Your task to perform on an android device: Is it going to rain this weekend? Image 0: 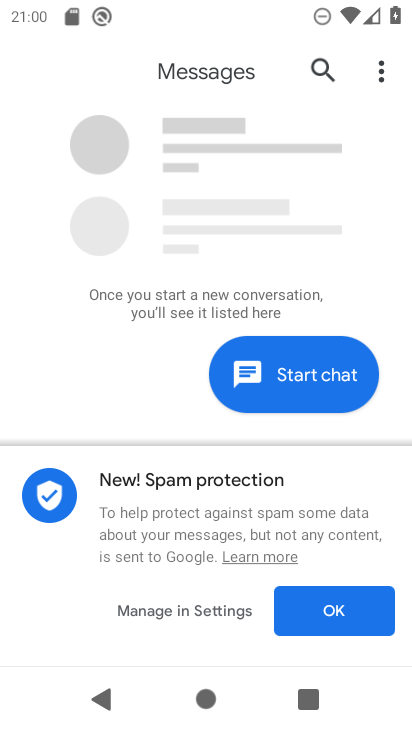
Step 0: press home button
Your task to perform on an android device: Is it going to rain this weekend? Image 1: 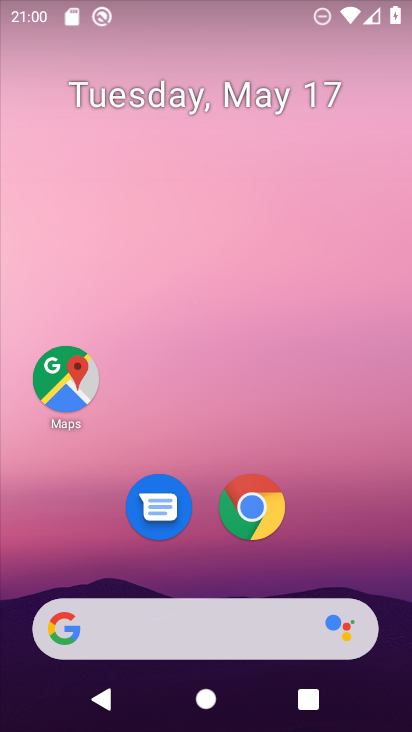
Step 1: click (142, 622)
Your task to perform on an android device: Is it going to rain this weekend? Image 2: 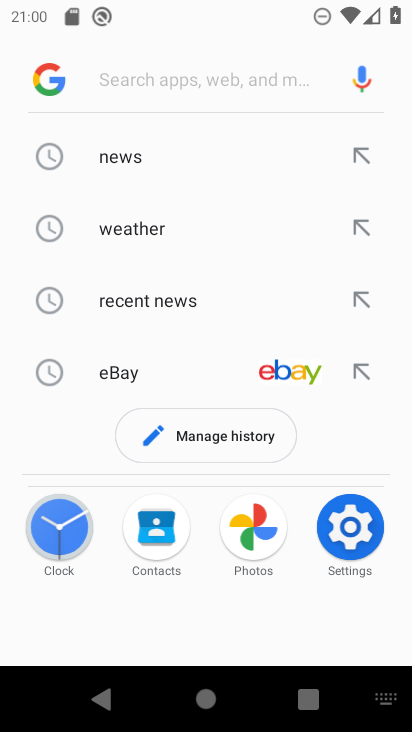
Step 2: click (147, 233)
Your task to perform on an android device: Is it going to rain this weekend? Image 3: 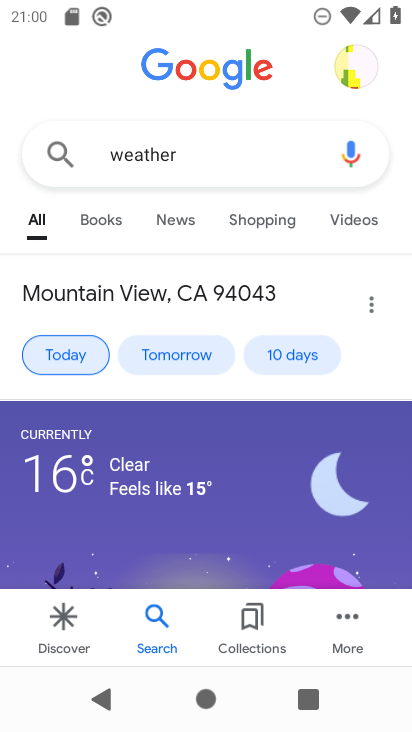
Step 3: click (287, 365)
Your task to perform on an android device: Is it going to rain this weekend? Image 4: 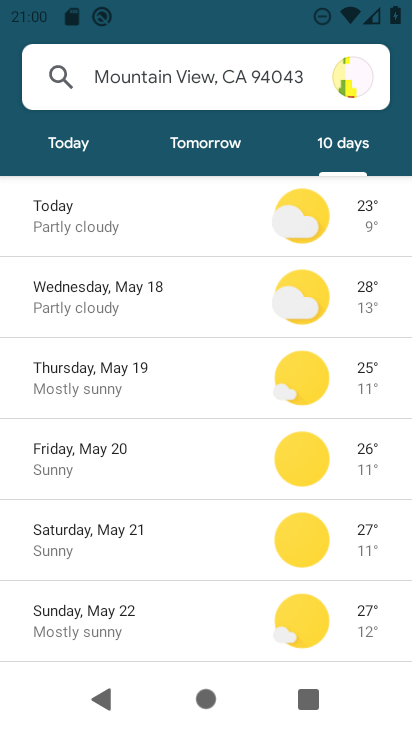
Step 4: task complete